Your task to perform on an android device: Go to ESPN.com Image 0: 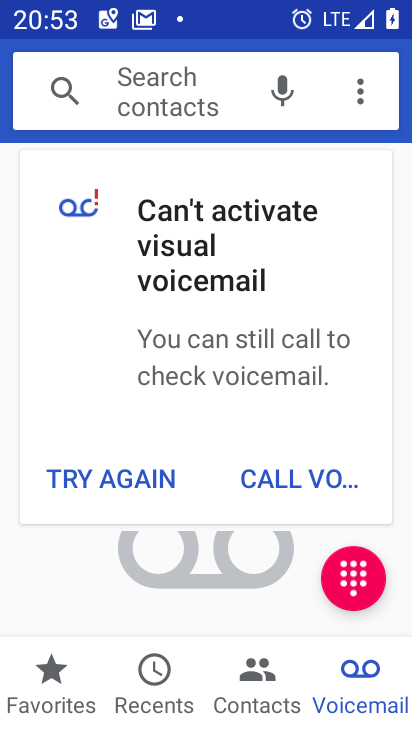
Step 0: press home button
Your task to perform on an android device: Go to ESPN.com Image 1: 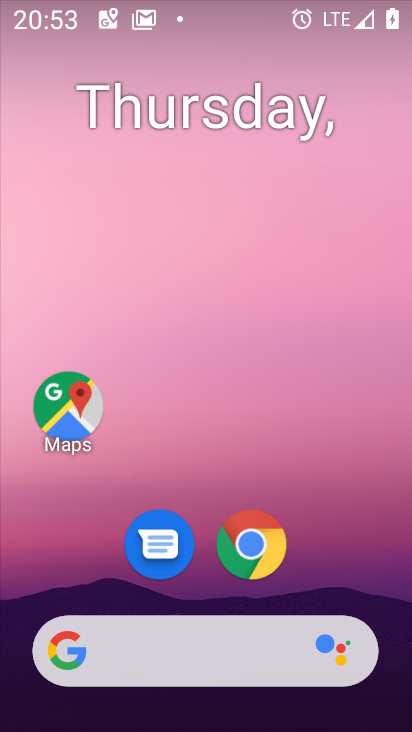
Step 1: click (258, 541)
Your task to perform on an android device: Go to ESPN.com Image 2: 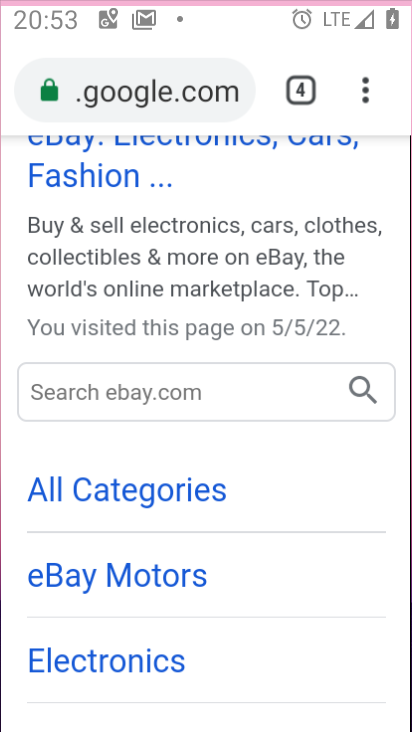
Step 2: click (258, 541)
Your task to perform on an android device: Go to ESPN.com Image 3: 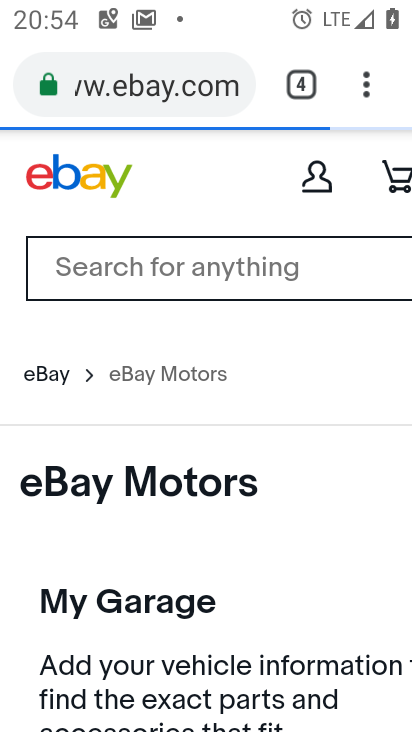
Step 3: click (306, 84)
Your task to perform on an android device: Go to ESPN.com Image 4: 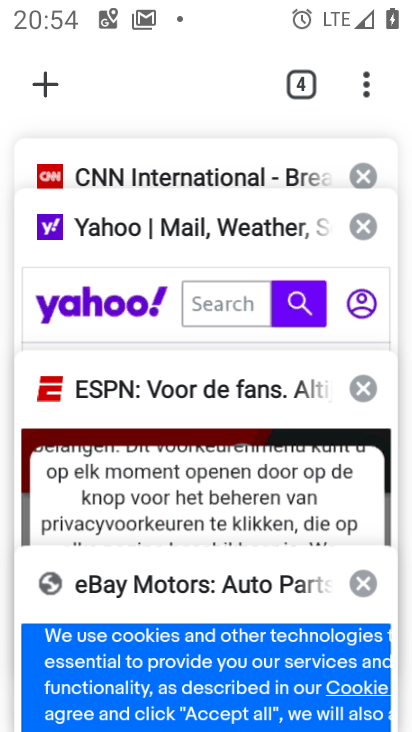
Step 4: click (66, 102)
Your task to perform on an android device: Go to ESPN.com Image 5: 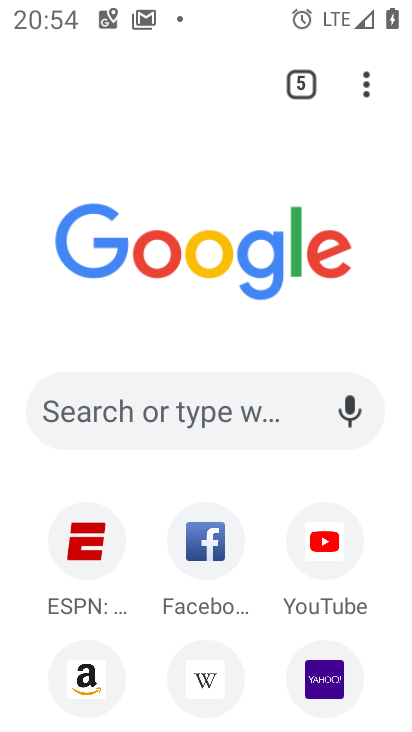
Step 5: click (84, 525)
Your task to perform on an android device: Go to ESPN.com Image 6: 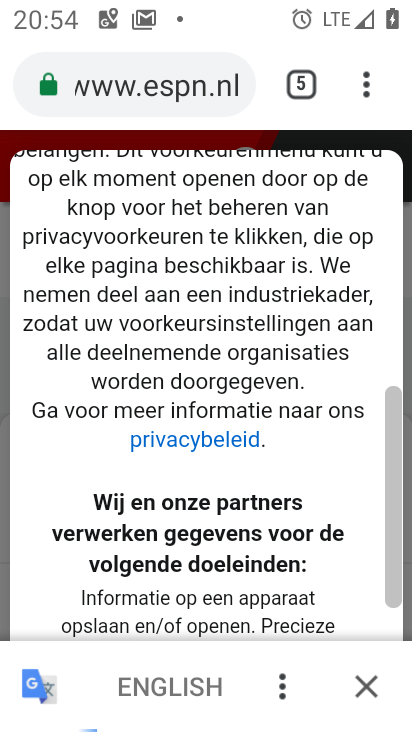
Step 6: task complete